Your task to perform on an android device: Toggle the flashlight Image 0: 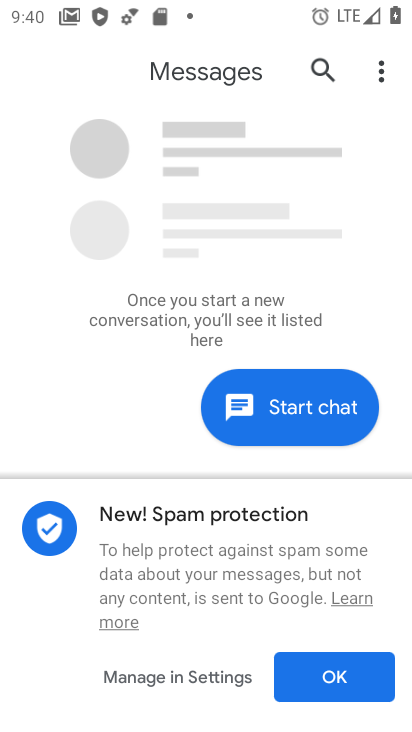
Step 0: press home button
Your task to perform on an android device: Toggle the flashlight Image 1: 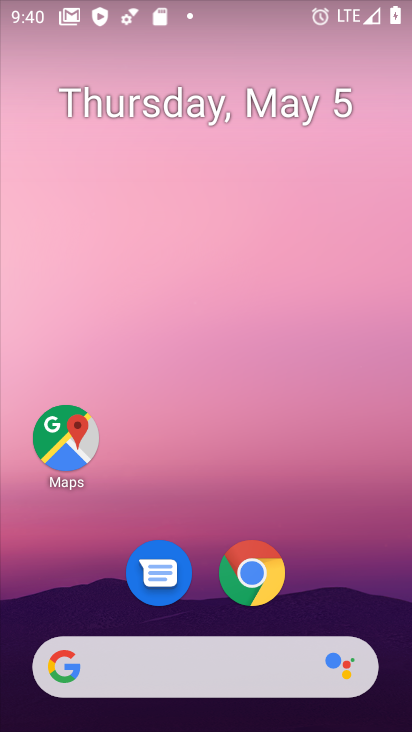
Step 1: drag from (182, 609) to (291, 94)
Your task to perform on an android device: Toggle the flashlight Image 2: 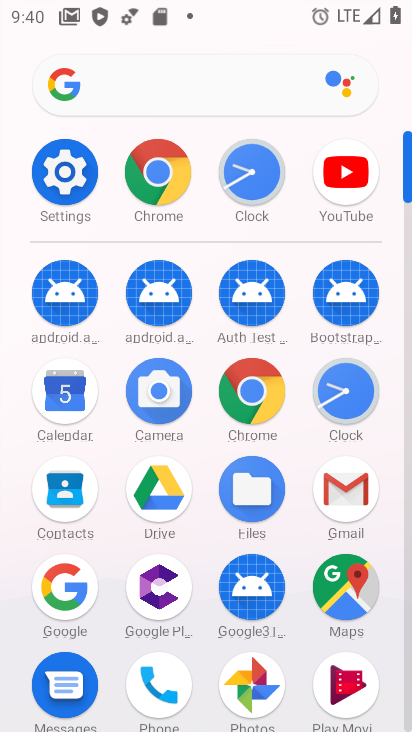
Step 2: click (73, 182)
Your task to perform on an android device: Toggle the flashlight Image 3: 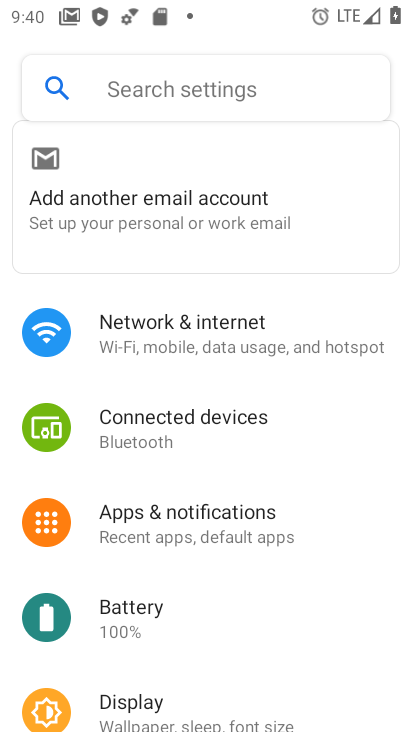
Step 3: click (181, 107)
Your task to perform on an android device: Toggle the flashlight Image 4: 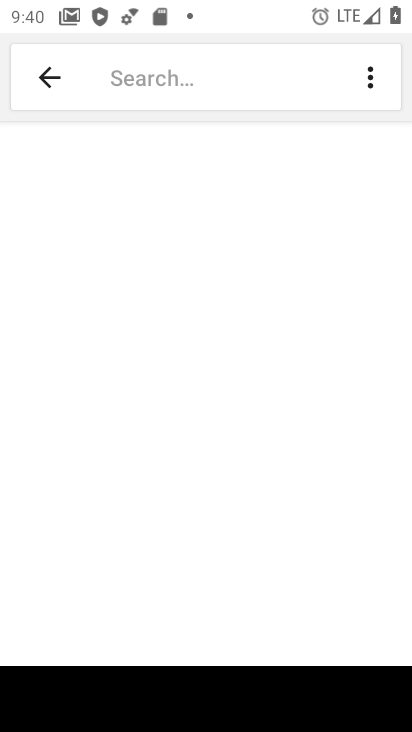
Step 4: type "flashlight"
Your task to perform on an android device: Toggle the flashlight Image 5: 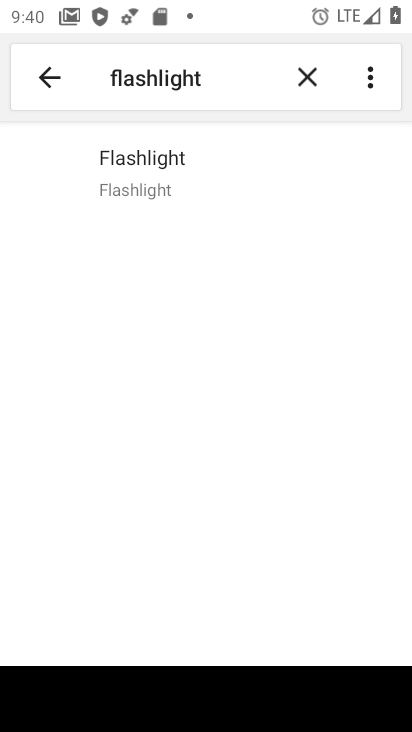
Step 5: click (159, 167)
Your task to perform on an android device: Toggle the flashlight Image 6: 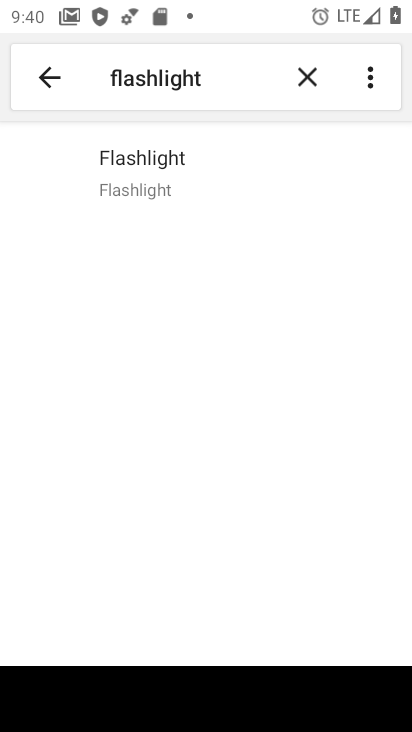
Step 6: task complete